Your task to perform on an android device: turn on sleep mode Image 0: 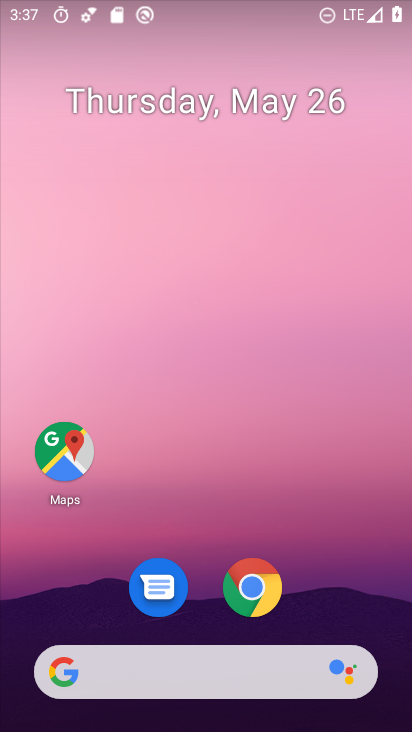
Step 0: drag from (326, 510) to (271, 69)
Your task to perform on an android device: turn on sleep mode Image 1: 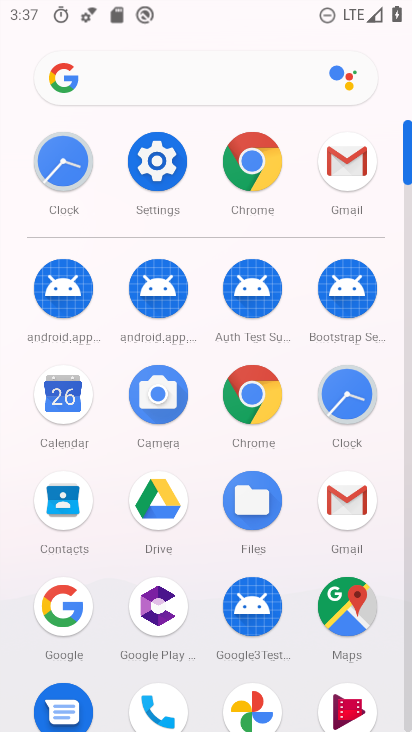
Step 1: click (168, 148)
Your task to perform on an android device: turn on sleep mode Image 2: 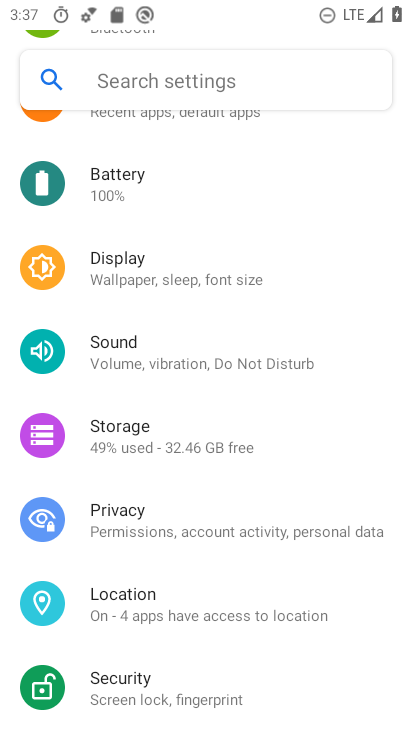
Step 2: click (154, 272)
Your task to perform on an android device: turn on sleep mode Image 3: 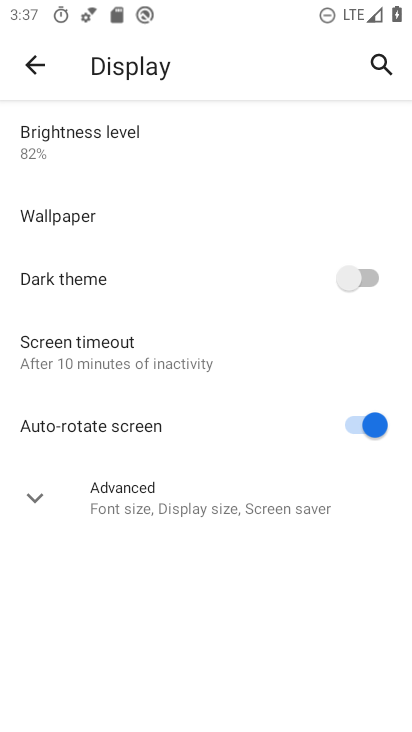
Step 3: click (102, 342)
Your task to perform on an android device: turn on sleep mode Image 4: 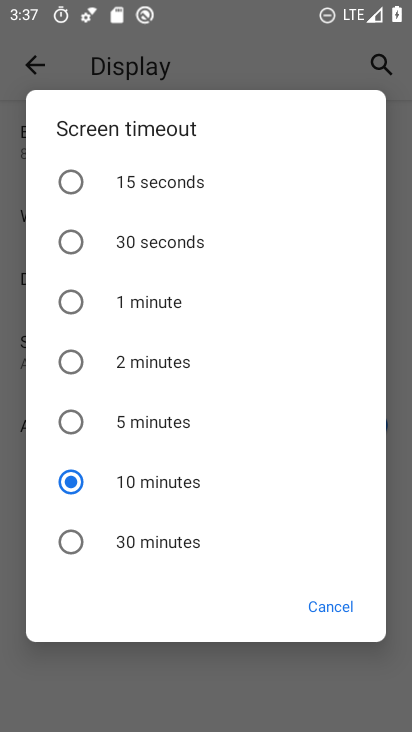
Step 4: task complete